Your task to perform on an android device: Open internet settings Image 0: 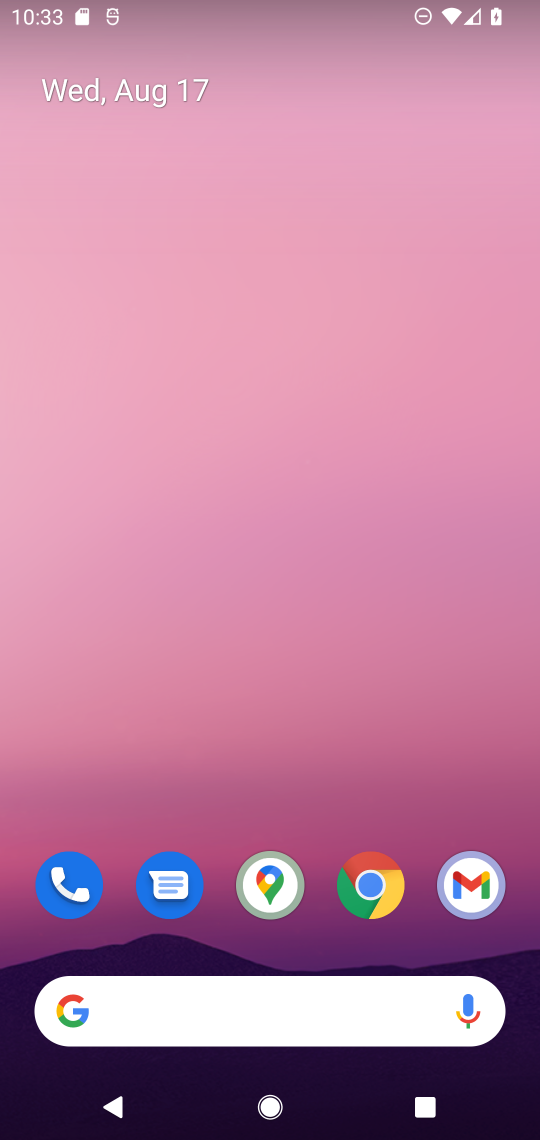
Step 0: drag from (421, 944) to (400, 168)
Your task to perform on an android device: Open internet settings Image 1: 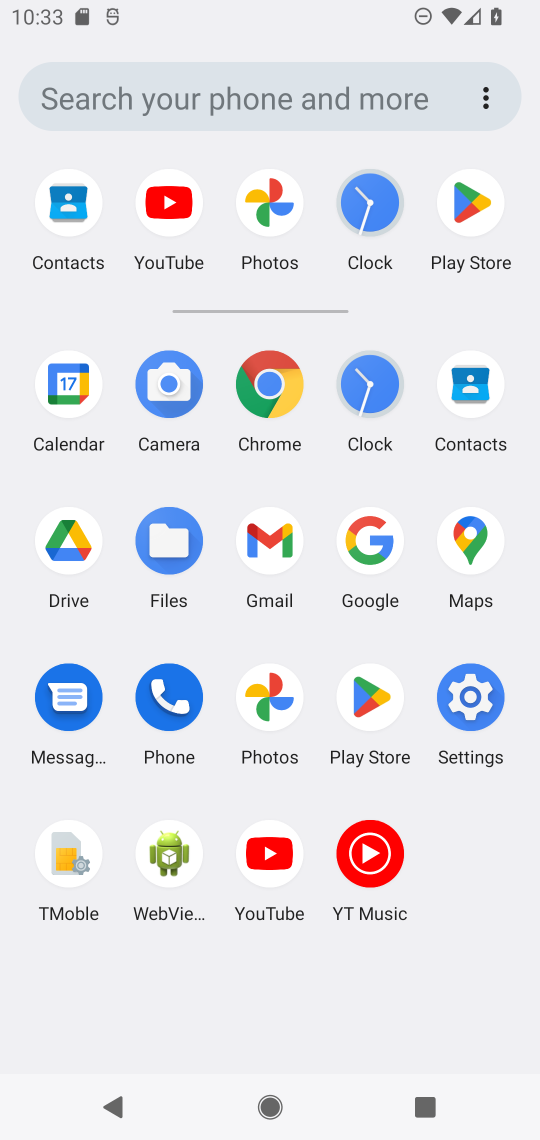
Step 1: click (470, 701)
Your task to perform on an android device: Open internet settings Image 2: 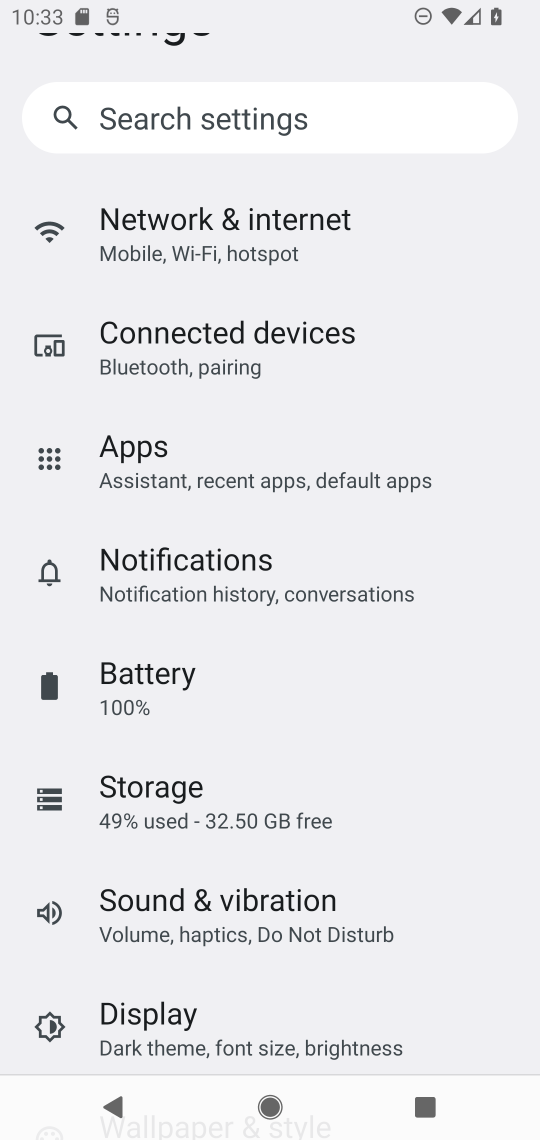
Step 2: click (145, 203)
Your task to perform on an android device: Open internet settings Image 3: 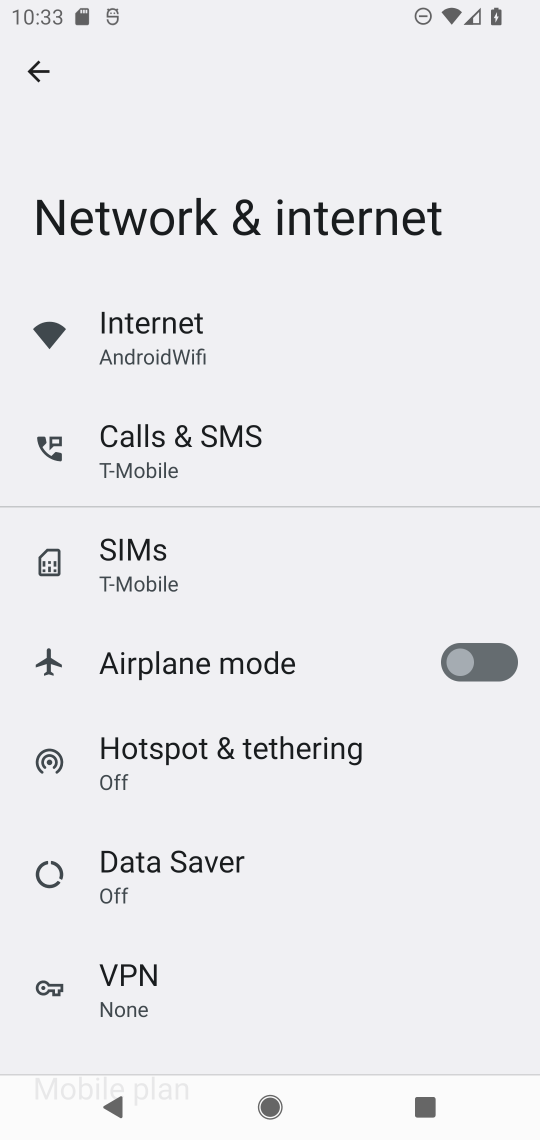
Step 3: click (135, 327)
Your task to perform on an android device: Open internet settings Image 4: 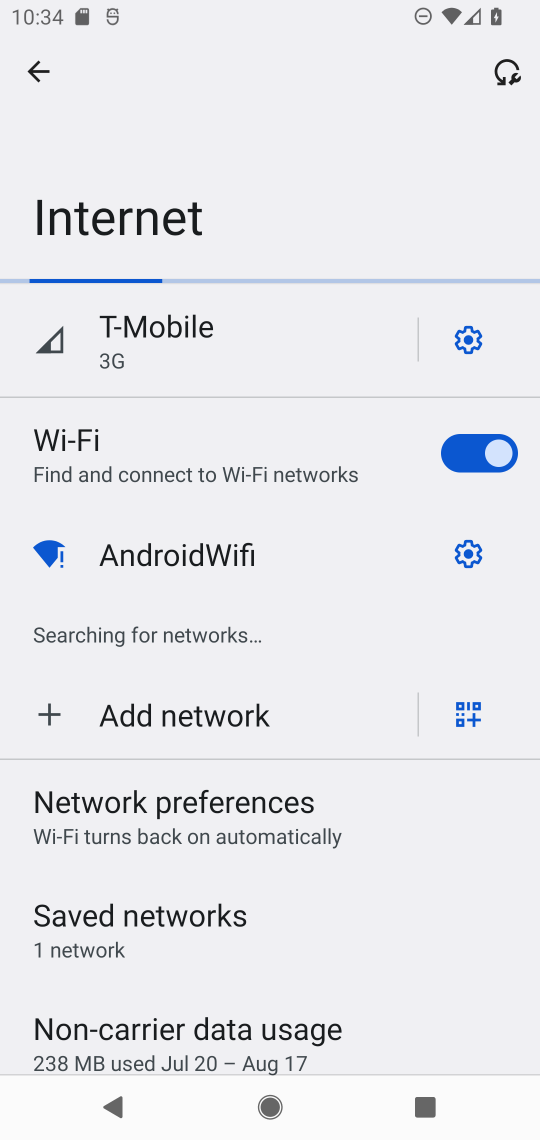
Step 4: click (465, 337)
Your task to perform on an android device: Open internet settings Image 5: 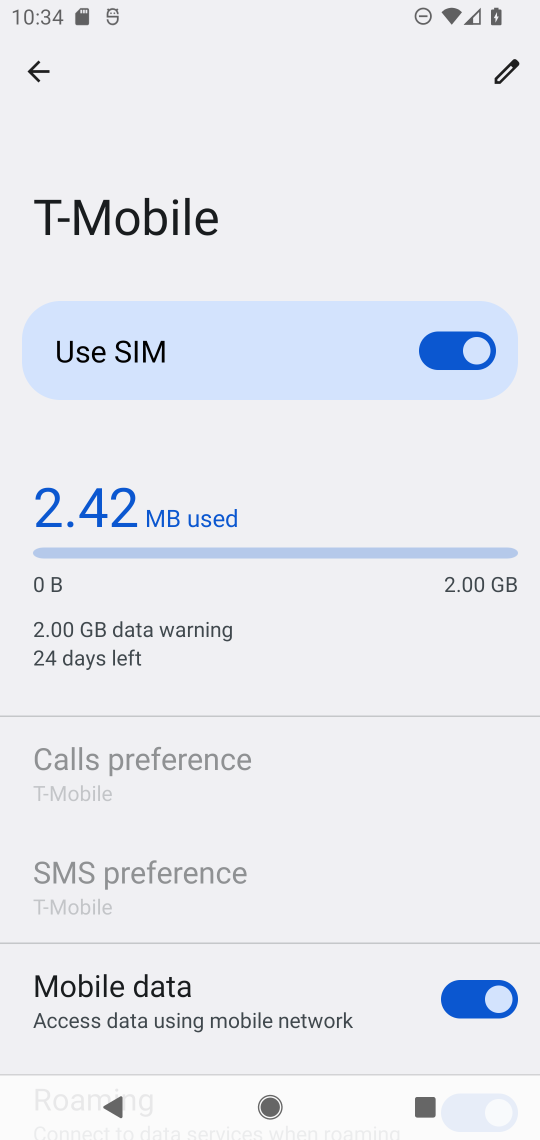
Step 5: task complete